Your task to perform on an android device: Open Google Image 0: 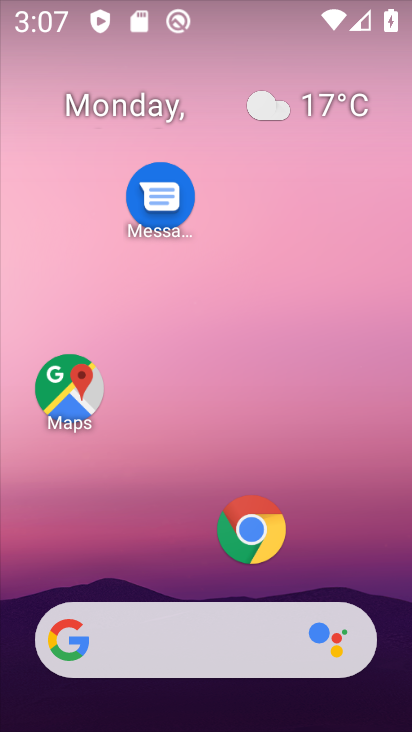
Step 0: drag from (302, 6) to (291, 491)
Your task to perform on an android device: Open Google Image 1: 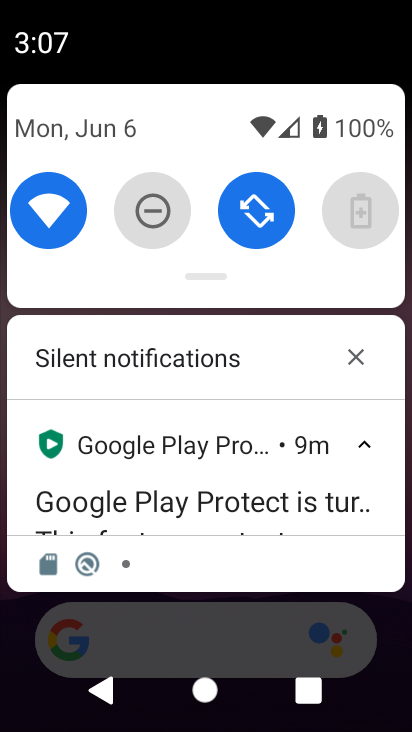
Step 1: drag from (215, 272) to (261, 730)
Your task to perform on an android device: Open Google Image 2: 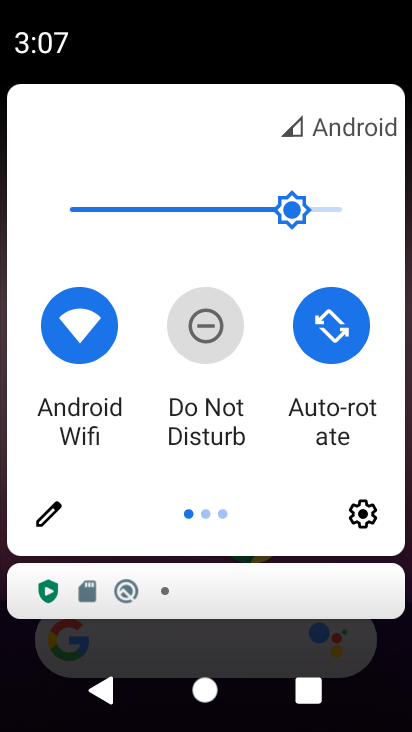
Step 2: drag from (341, 373) to (63, 355)
Your task to perform on an android device: Open Google Image 3: 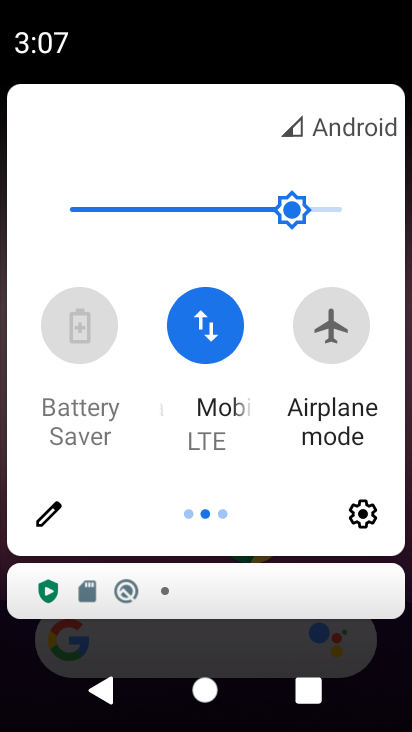
Step 3: click (334, 329)
Your task to perform on an android device: Open Google Image 4: 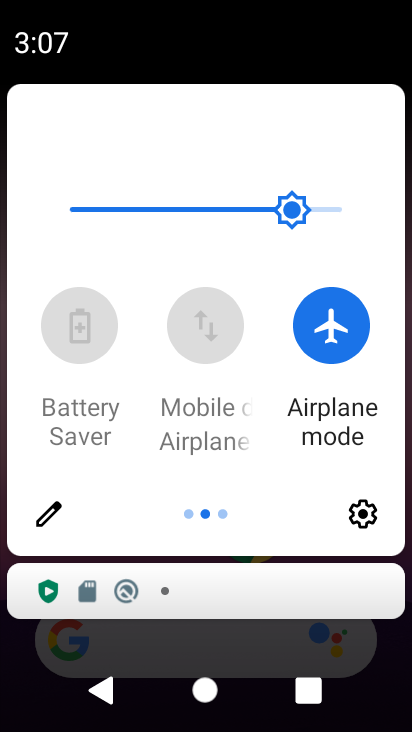
Step 4: task complete